Your task to perform on an android device: turn on sleep mode Image 0: 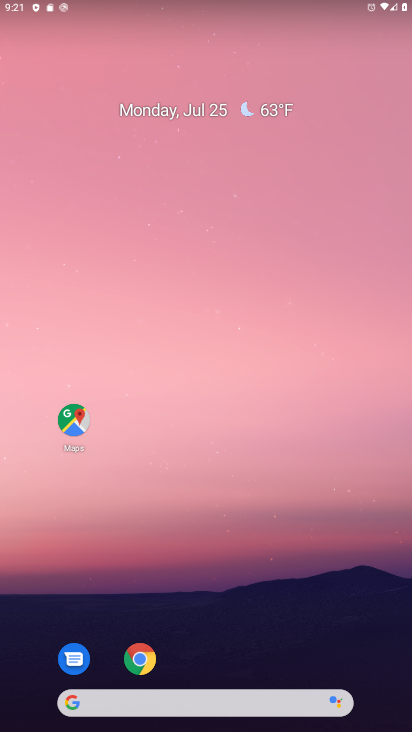
Step 0: drag from (191, 727) to (192, 89)
Your task to perform on an android device: turn on sleep mode Image 1: 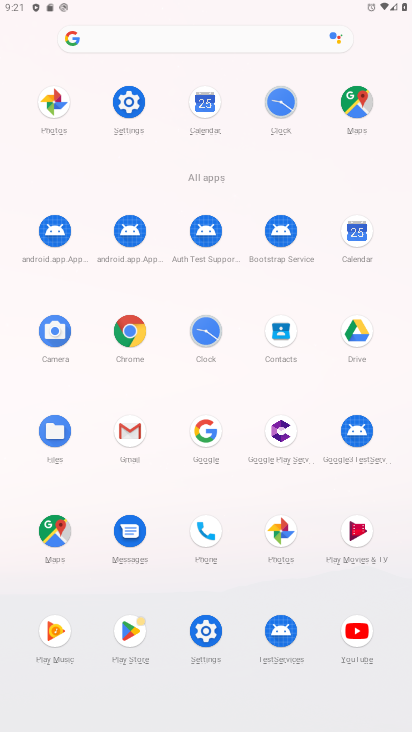
Step 1: click (130, 98)
Your task to perform on an android device: turn on sleep mode Image 2: 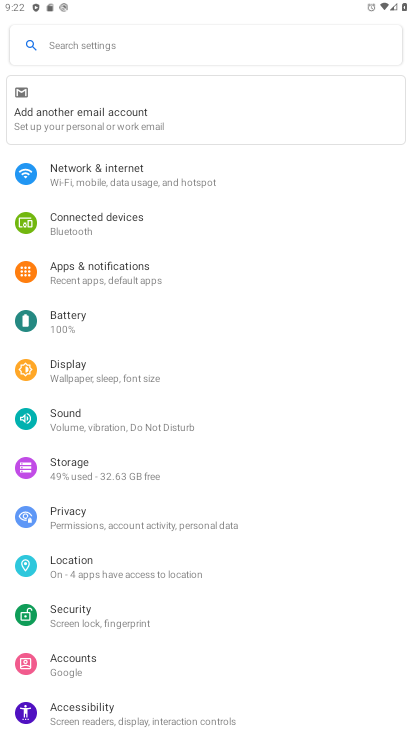
Step 2: click (119, 377)
Your task to perform on an android device: turn on sleep mode Image 3: 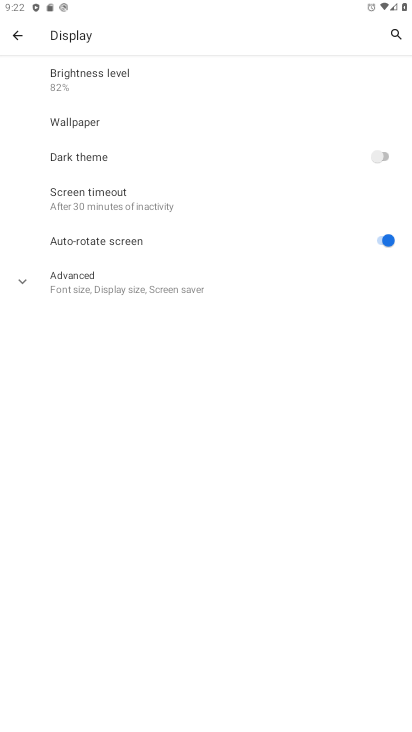
Step 3: click (151, 287)
Your task to perform on an android device: turn on sleep mode Image 4: 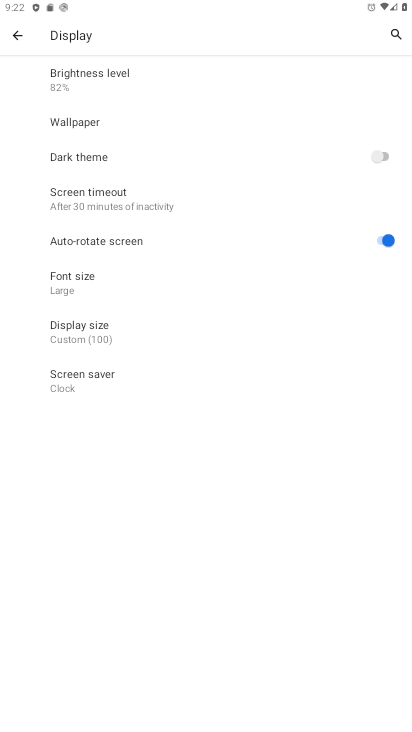
Step 4: task complete